Your task to perform on an android device: Open display settings Image 0: 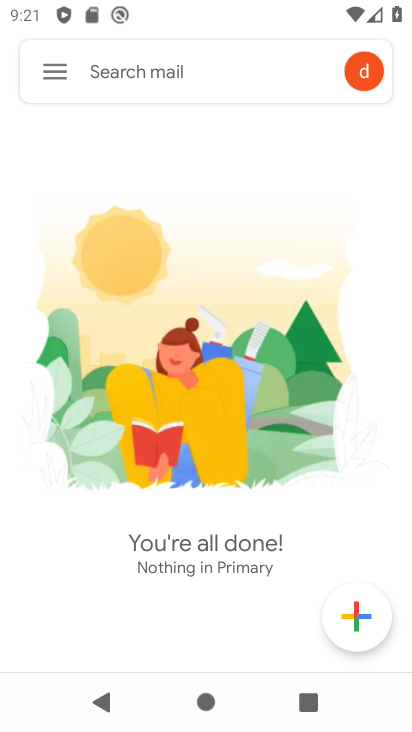
Step 0: press home button
Your task to perform on an android device: Open display settings Image 1: 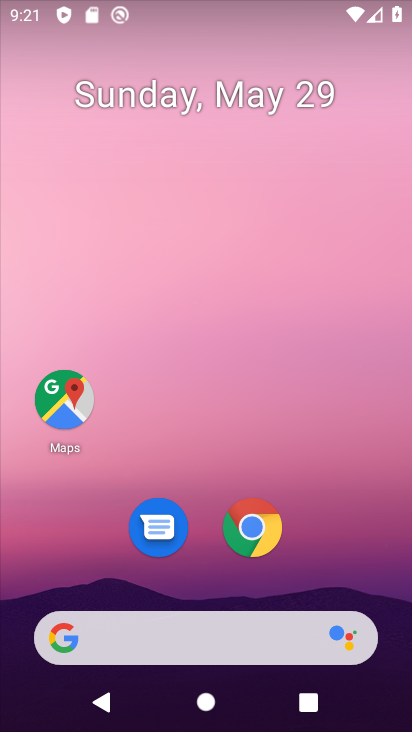
Step 1: drag from (199, 637) to (381, 6)
Your task to perform on an android device: Open display settings Image 2: 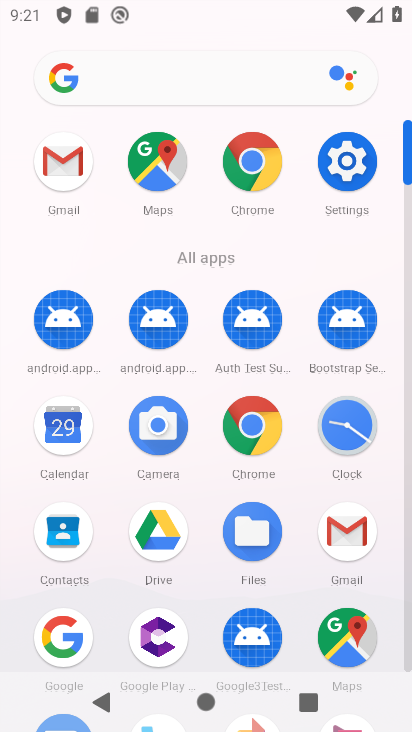
Step 2: click (352, 167)
Your task to perform on an android device: Open display settings Image 3: 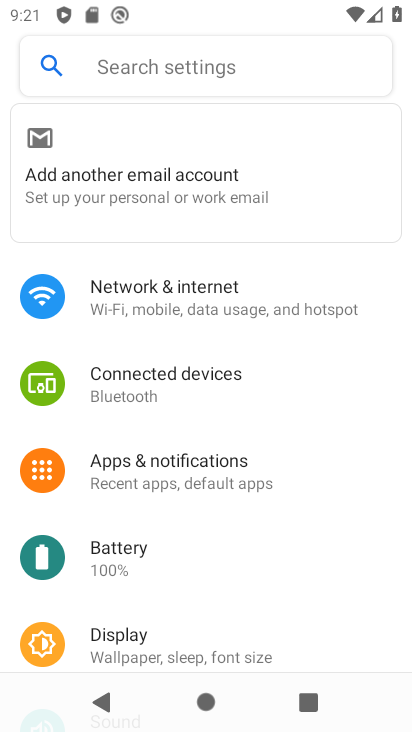
Step 3: drag from (232, 578) to (337, 324)
Your task to perform on an android device: Open display settings Image 4: 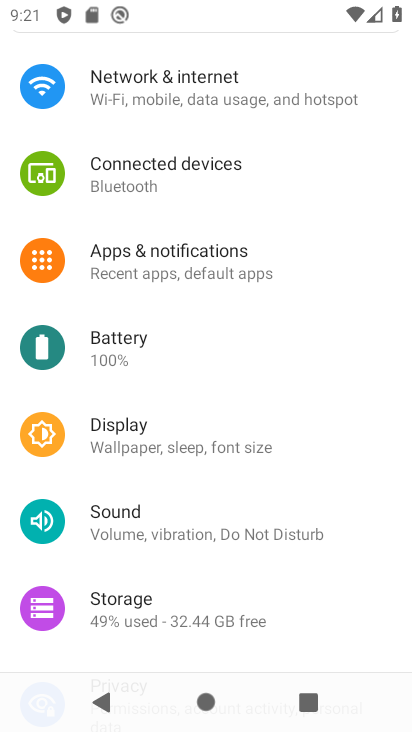
Step 4: click (135, 435)
Your task to perform on an android device: Open display settings Image 5: 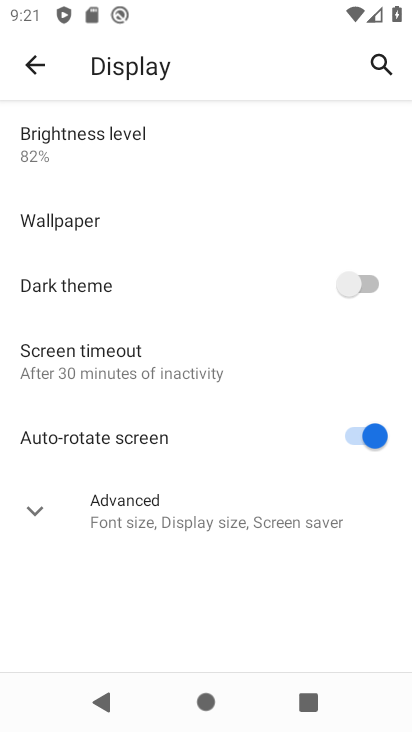
Step 5: task complete